Your task to perform on an android device: clear all cookies in the chrome app Image 0: 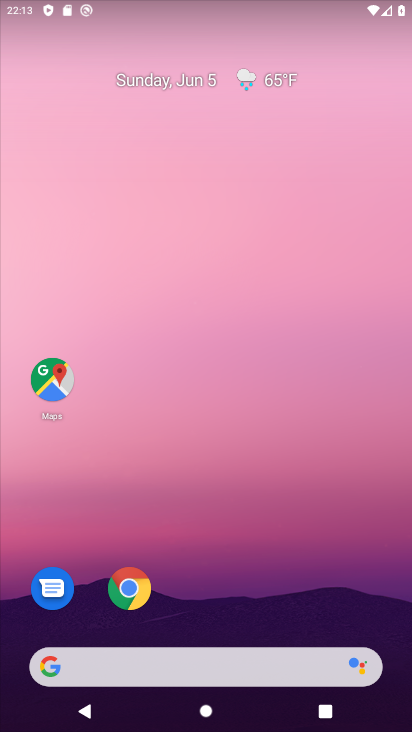
Step 0: click (141, 586)
Your task to perform on an android device: clear all cookies in the chrome app Image 1: 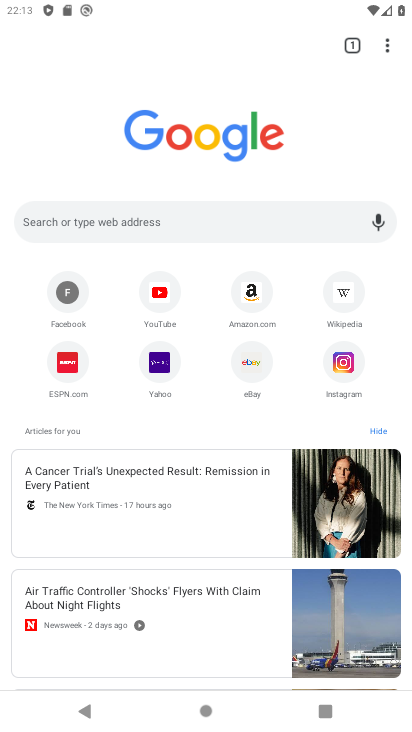
Step 1: drag from (391, 47) to (329, 385)
Your task to perform on an android device: clear all cookies in the chrome app Image 2: 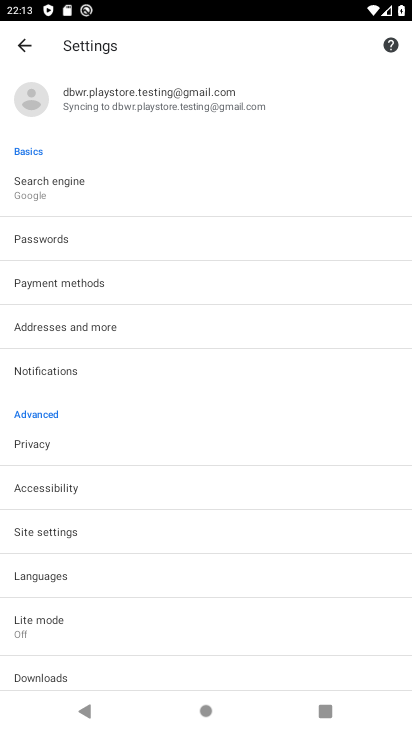
Step 2: click (87, 449)
Your task to perform on an android device: clear all cookies in the chrome app Image 3: 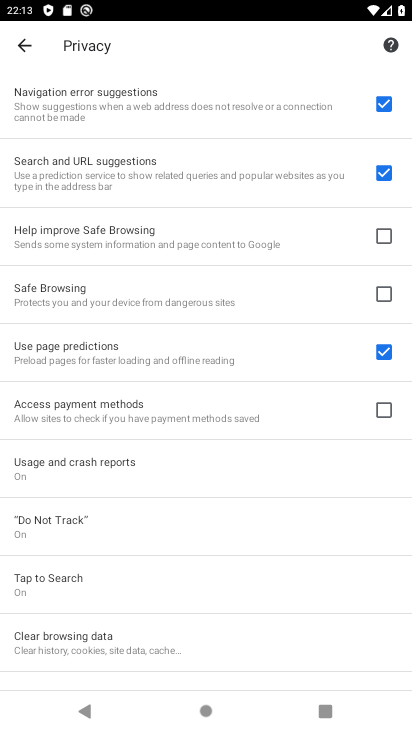
Step 3: drag from (127, 640) to (231, 255)
Your task to perform on an android device: clear all cookies in the chrome app Image 4: 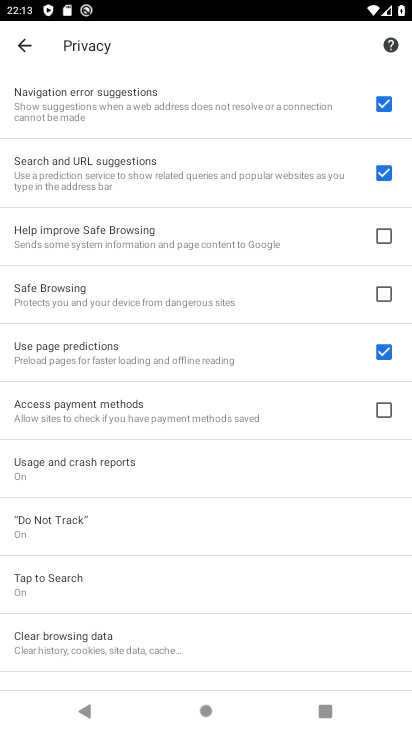
Step 4: click (118, 647)
Your task to perform on an android device: clear all cookies in the chrome app Image 5: 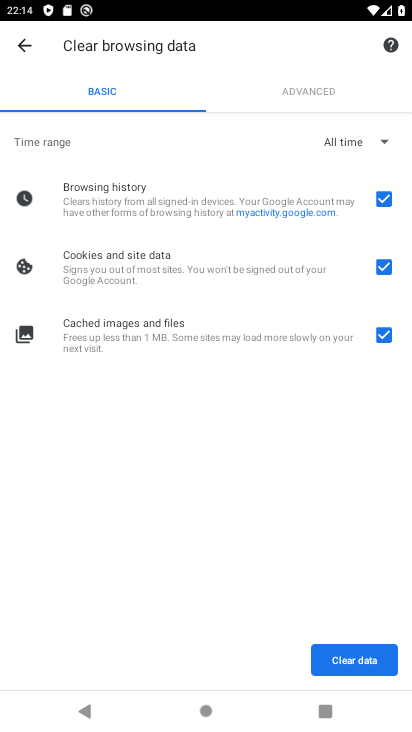
Step 5: click (387, 193)
Your task to perform on an android device: clear all cookies in the chrome app Image 6: 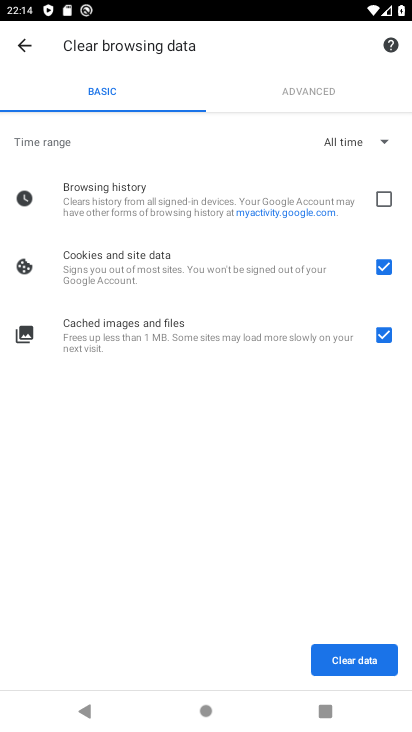
Step 6: click (390, 342)
Your task to perform on an android device: clear all cookies in the chrome app Image 7: 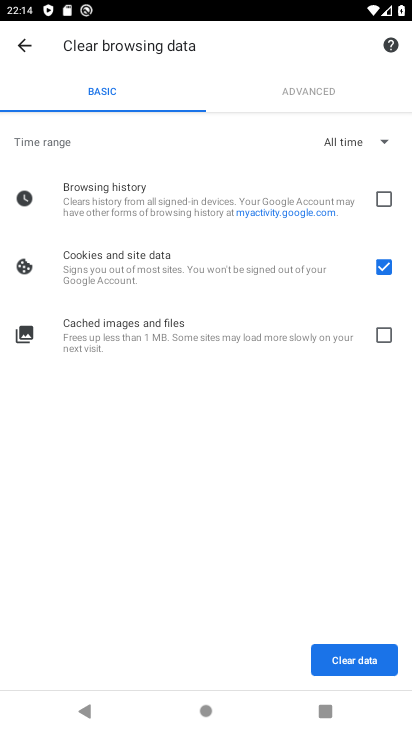
Step 7: click (365, 673)
Your task to perform on an android device: clear all cookies in the chrome app Image 8: 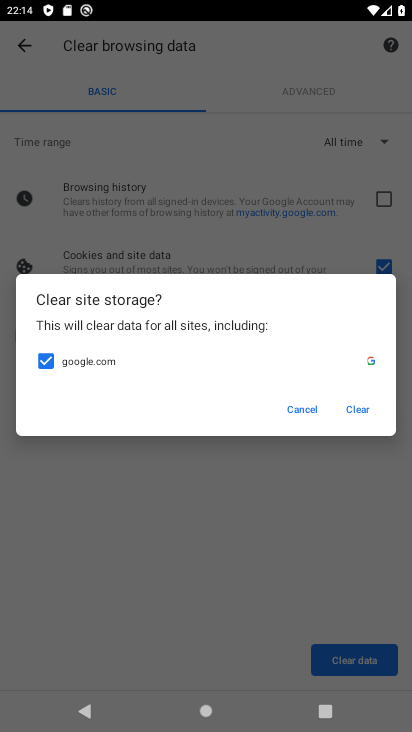
Step 8: click (348, 411)
Your task to perform on an android device: clear all cookies in the chrome app Image 9: 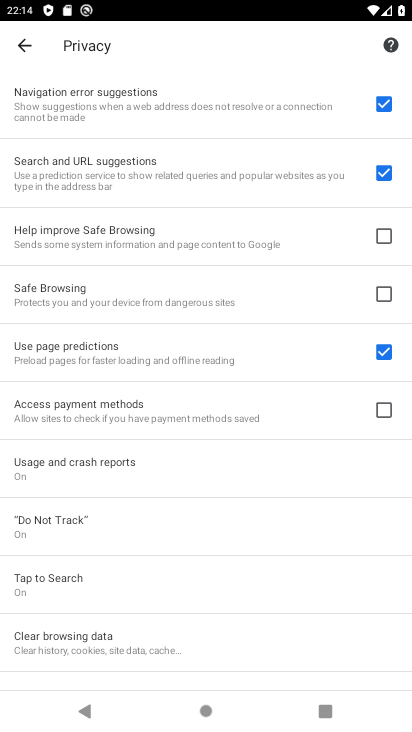
Step 9: task complete